Your task to perform on an android device: toggle notification dots Image 0: 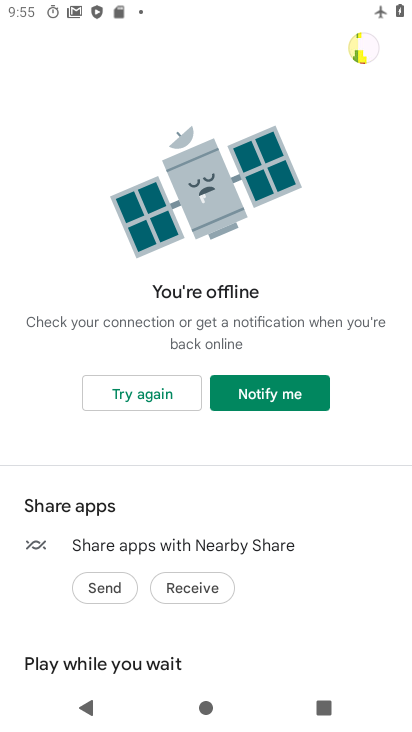
Step 0: press home button
Your task to perform on an android device: toggle notification dots Image 1: 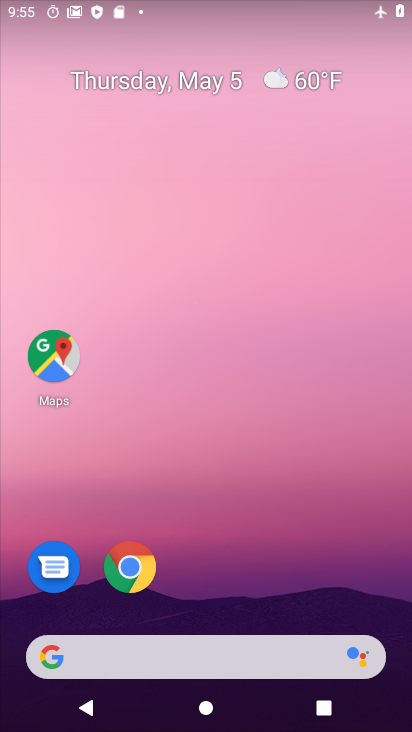
Step 1: drag from (315, 551) to (1, 164)
Your task to perform on an android device: toggle notification dots Image 2: 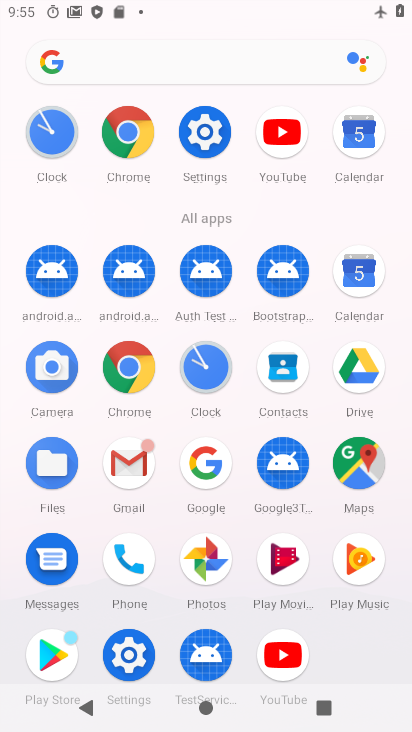
Step 2: click (198, 144)
Your task to perform on an android device: toggle notification dots Image 3: 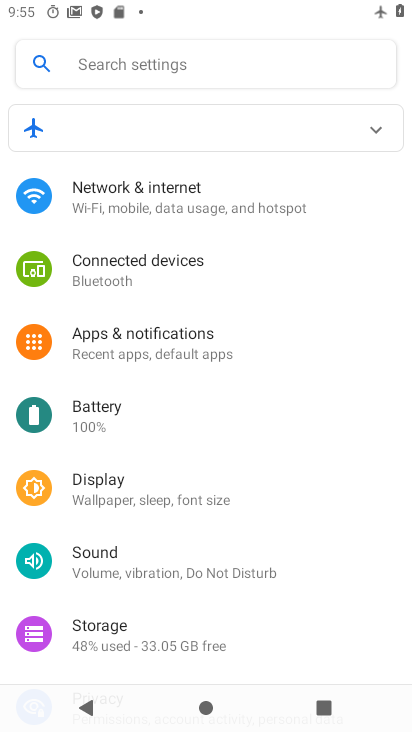
Step 3: click (160, 339)
Your task to perform on an android device: toggle notification dots Image 4: 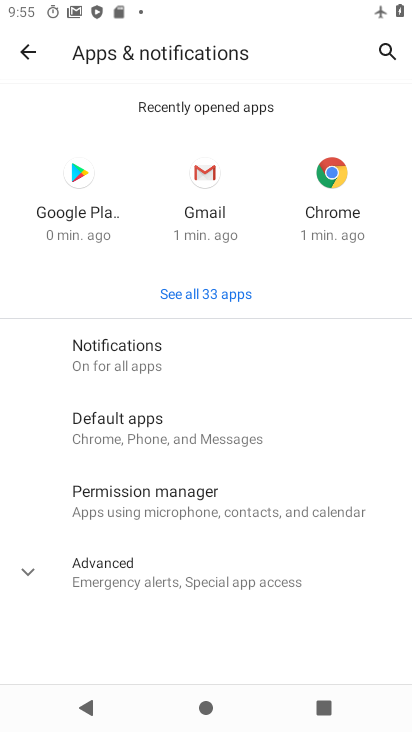
Step 4: click (137, 362)
Your task to perform on an android device: toggle notification dots Image 5: 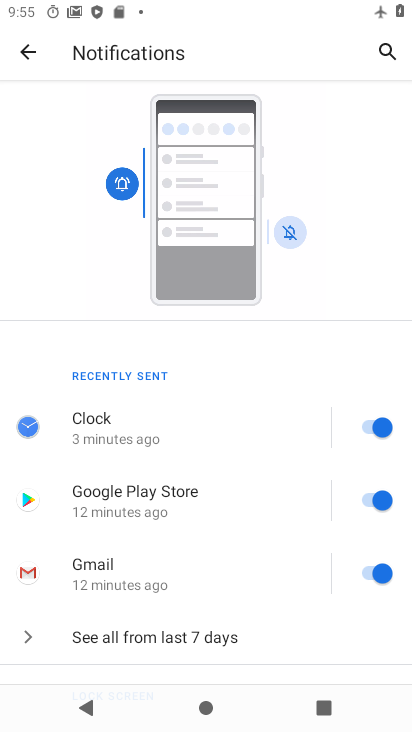
Step 5: drag from (163, 633) to (174, 311)
Your task to perform on an android device: toggle notification dots Image 6: 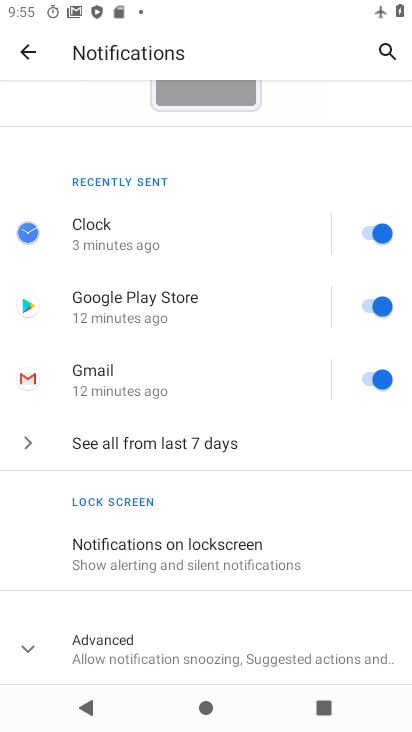
Step 6: drag from (202, 572) to (249, 253)
Your task to perform on an android device: toggle notification dots Image 7: 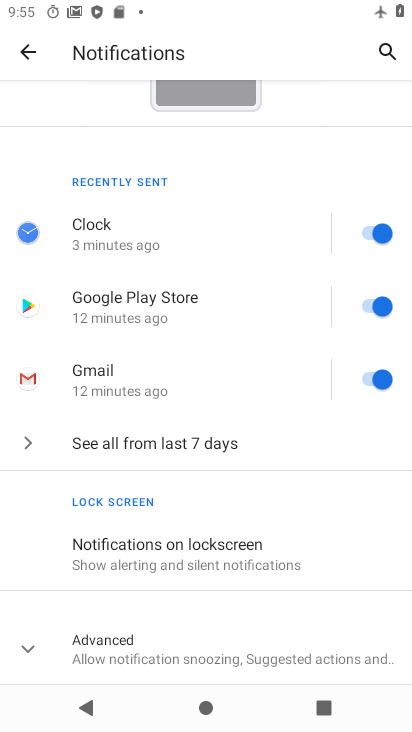
Step 7: click (150, 636)
Your task to perform on an android device: toggle notification dots Image 8: 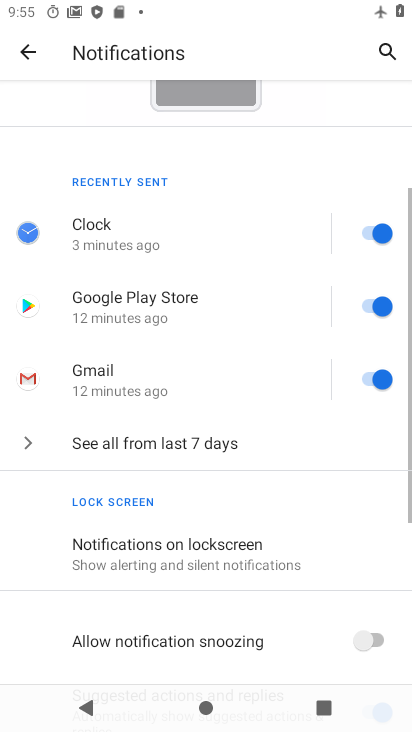
Step 8: drag from (161, 636) to (208, 328)
Your task to perform on an android device: toggle notification dots Image 9: 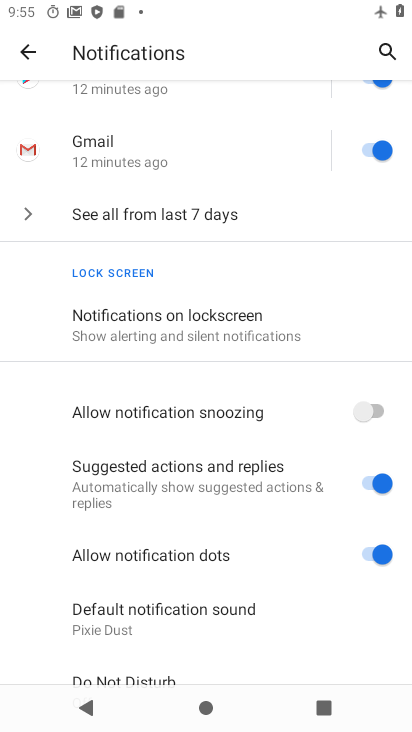
Step 9: drag from (207, 616) to (189, 135)
Your task to perform on an android device: toggle notification dots Image 10: 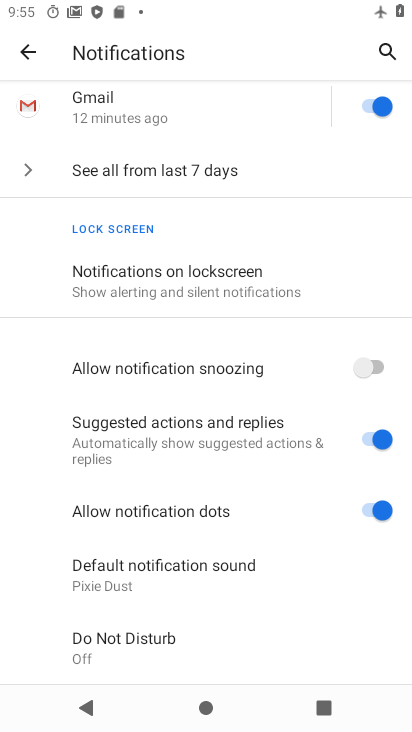
Step 10: click (372, 506)
Your task to perform on an android device: toggle notification dots Image 11: 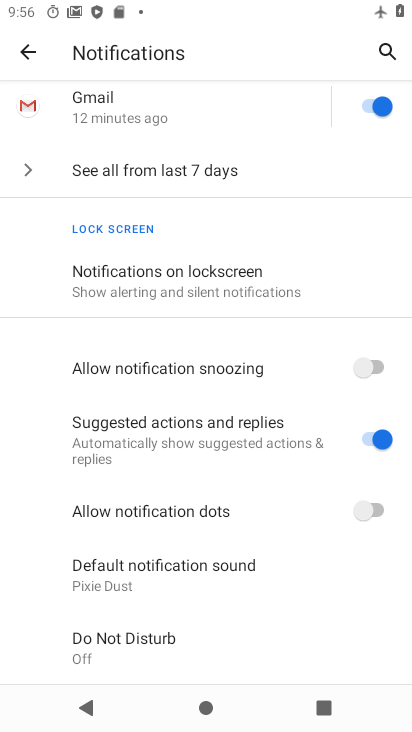
Step 11: task complete